Your task to perform on an android device: open device folders in google photos Image 0: 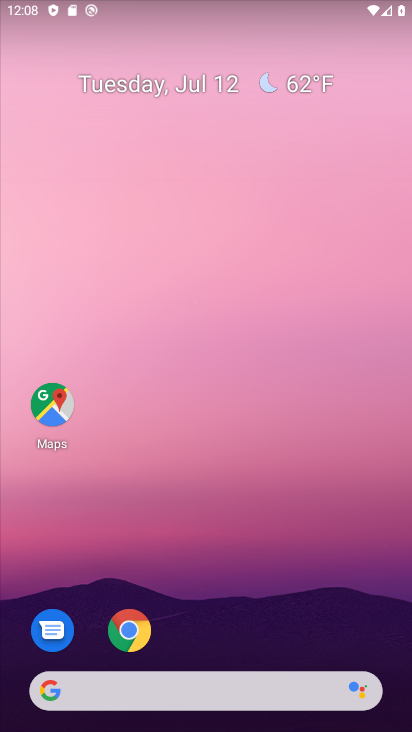
Step 0: drag from (197, 636) to (216, 171)
Your task to perform on an android device: open device folders in google photos Image 1: 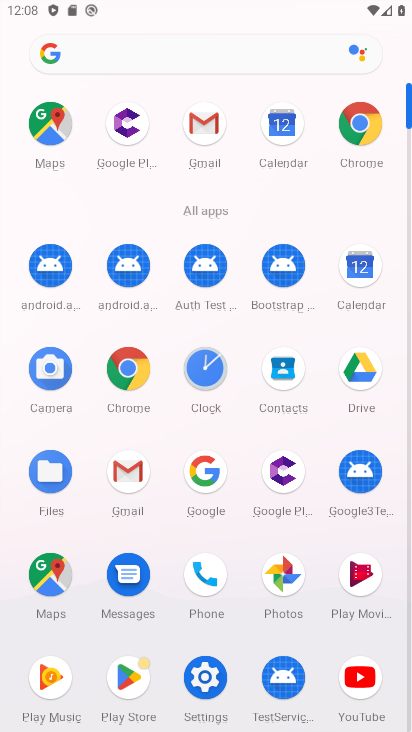
Step 1: click (291, 571)
Your task to perform on an android device: open device folders in google photos Image 2: 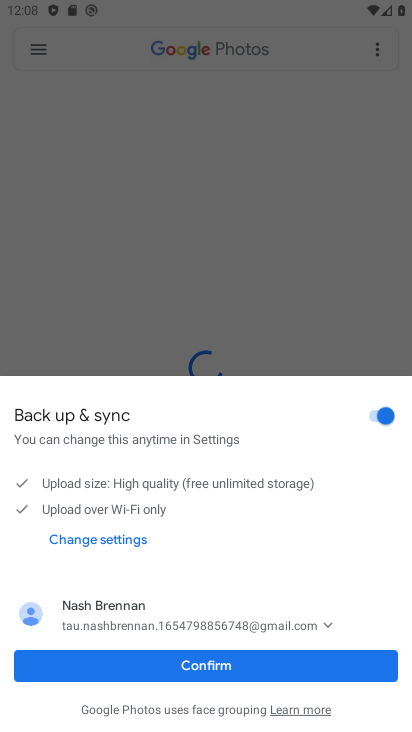
Step 2: click (193, 667)
Your task to perform on an android device: open device folders in google photos Image 3: 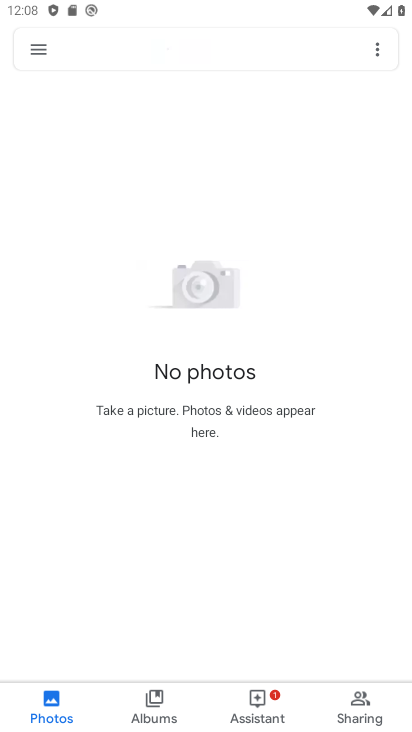
Step 3: click (36, 46)
Your task to perform on an android device: open device folders in google photos Image 4: 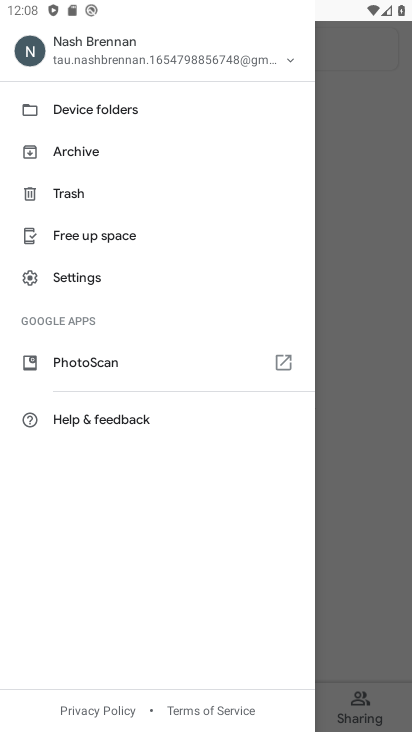
Step 4: click (79, 109)
Your task to perform on an android device: open device folders in google photos Image 5: 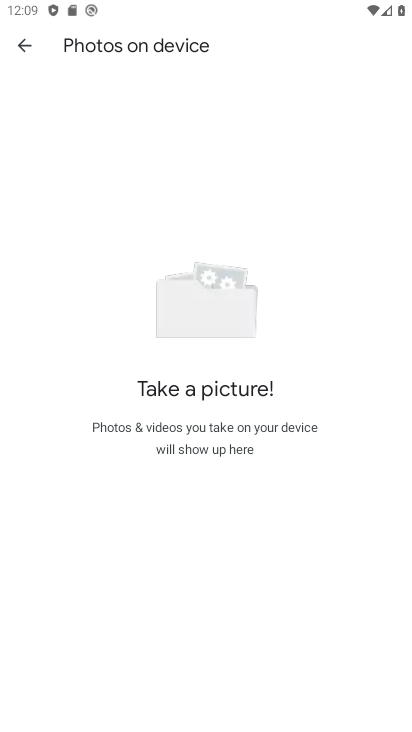
Step 5: task complete